Your task to perform on an android device: turn on showing notifications on the lock screen Image 0: 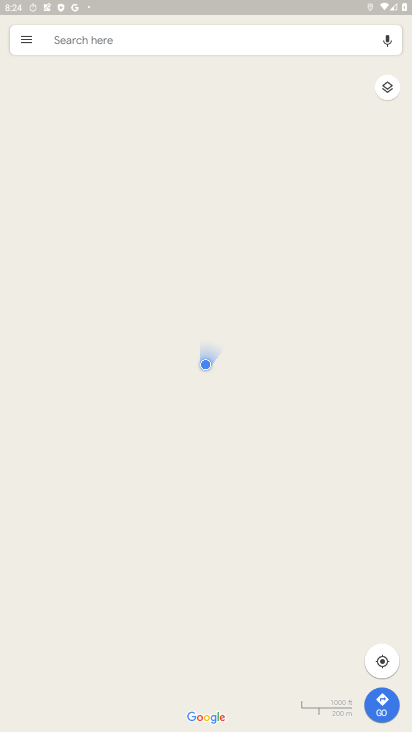
Step 0: press back button
Your task to perform on an android device: turn on showing notifications on the lock screen Image 1: 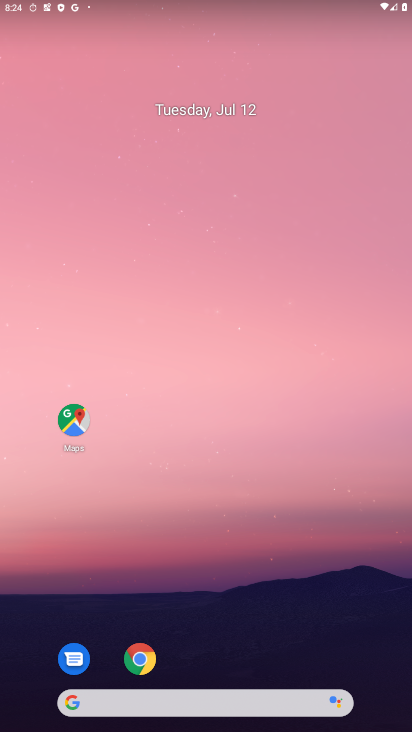
Step 1: press home button
Your task to perform on an android device: turn on showing notifications on the lock screen Image 2: 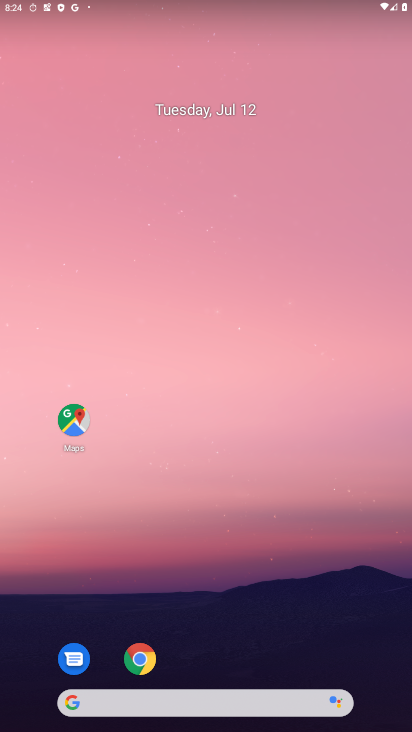
Step 2: drag from (236, 637) to (203, 335)
Your task to perform on an android device: turn on showing notifications on the lock screen Image 3: 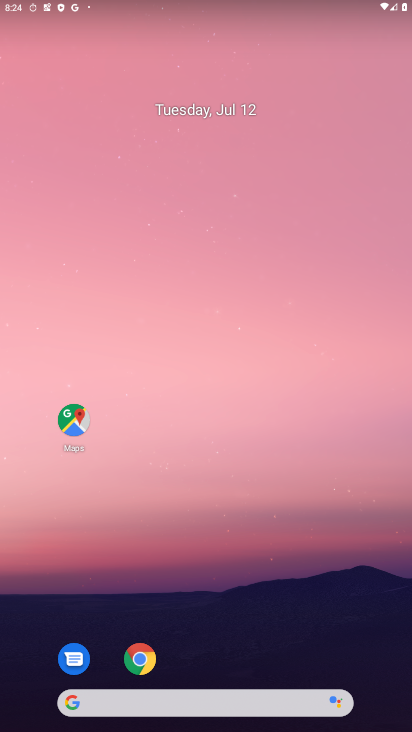
Step 3: drag from (244, 658) to (261, 227)
Your task to perform on an android device: turn on showing notifications on the lock screen Image 4: 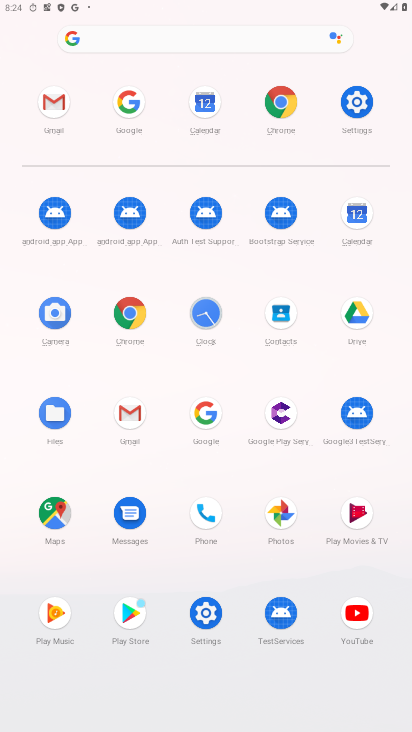
Step 4: click (206, 602)
Your task to perform on an android device: turn on showing notifications on the lock screen Image 5: 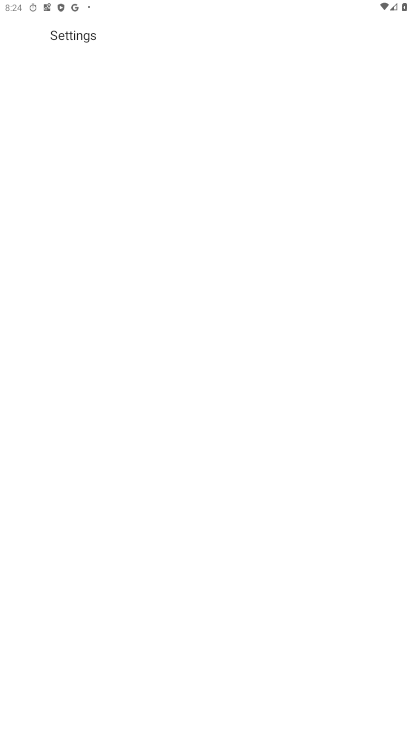
Step 5: click (210, 616)
Your task to perform on an android device: turn on showing notifications on the lock screen Image 6: 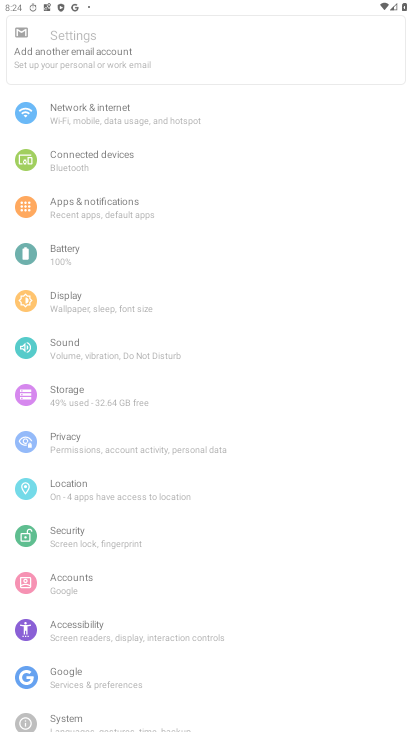
Step 6: click (211, 617)
Your task to perform on an android device: turn on showing notifications on the lock screen Image 7: 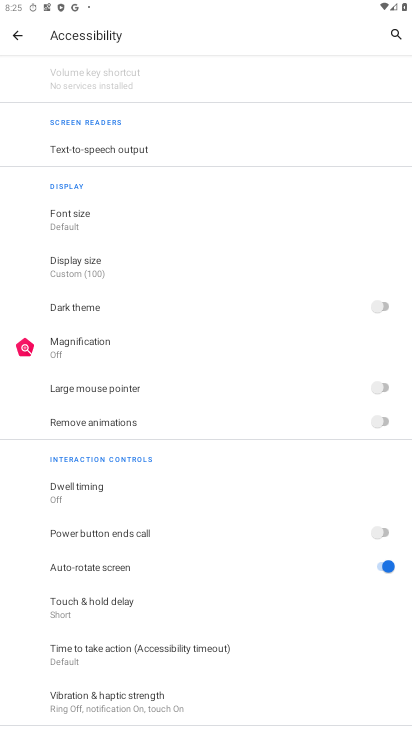
Step 7: click (10, 36)
Your task to perform on an android device: turn on showing notifications on the lock screen Image 8: 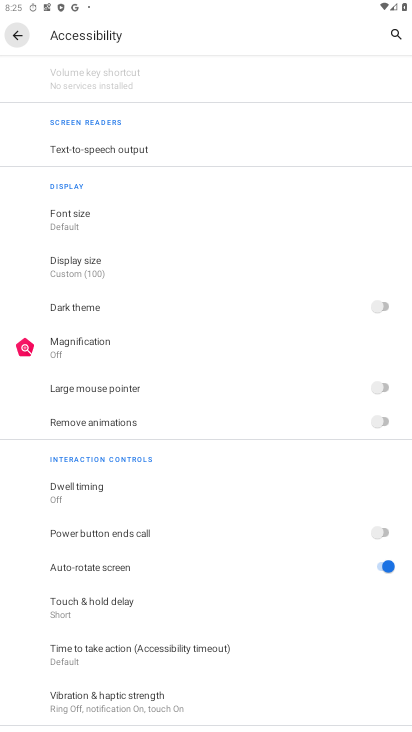
Step 8: click (10, 36)
Your task to perform on an android device: turn on showing notifications on the lock screen Image 9: 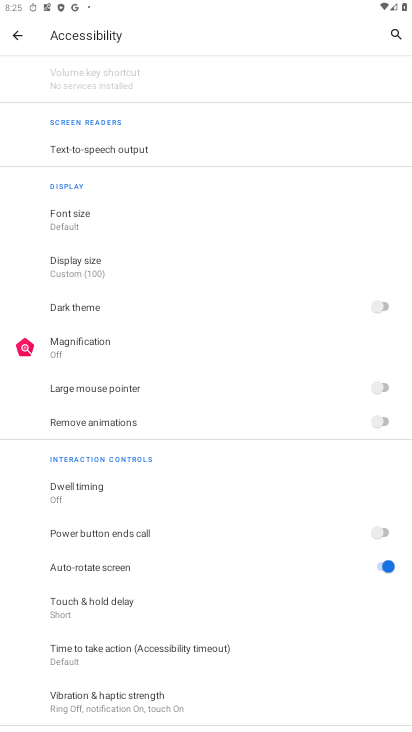
Step 9: click (17, 33)
Your task to perform on an android device: turn on showing notifications on the lock screen Image 10: 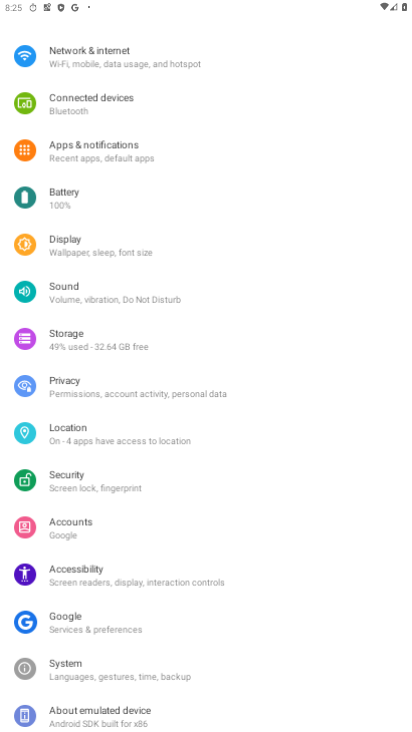
Step 10: click (17, 32)
Your task to perform on an android device: turn on showing notifications on the lock screen Image 11: 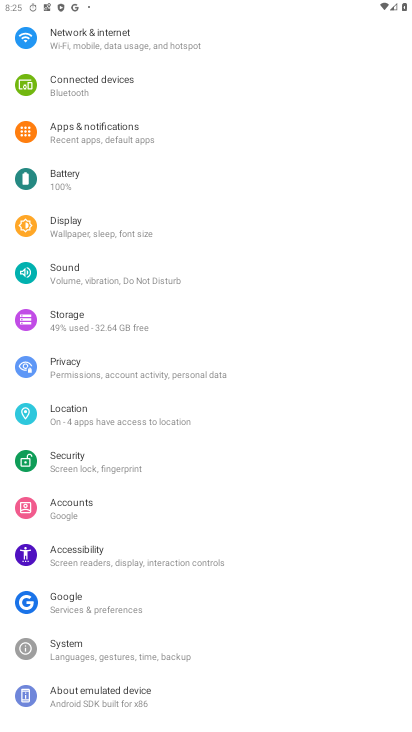
Step 11: click (19, 32)
Your task to perform on an android device: turn on showing notifications on the lock screen Image 12: 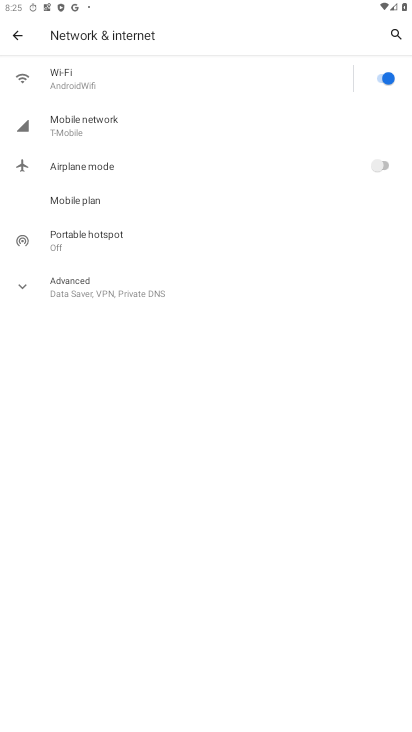
Step 12: click (15, 32)
Your task to perform on an android device: turn on showing notifications on the lock screen Image 13: 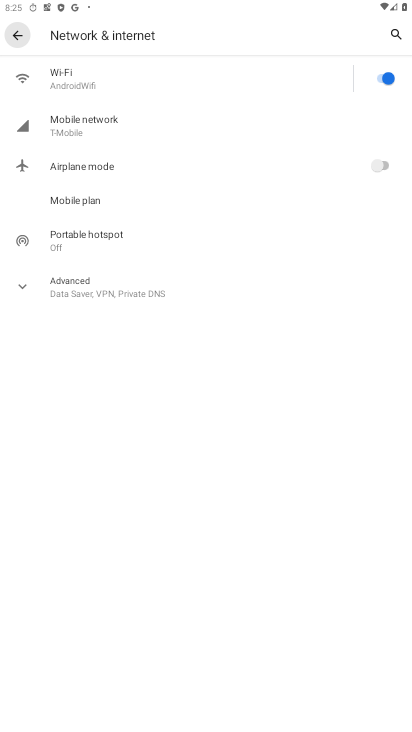
Step 13: click (15, 32)
Your task to perform on an android device: turn on showing notifications on the lock screen Image 14: 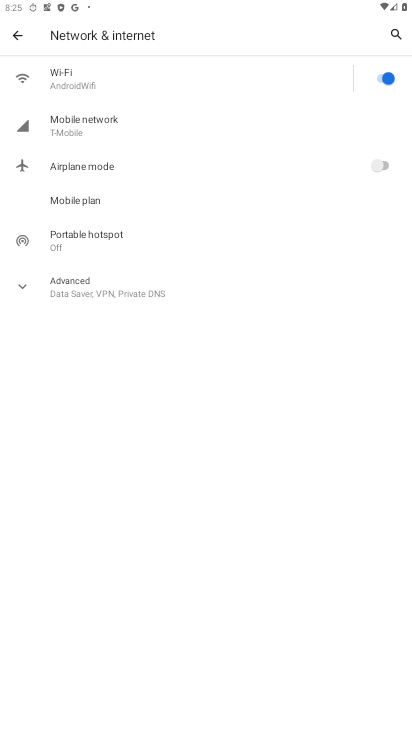
Step 14: click (15, 31)
Your task to perform on an android device: turn on showing notifications on the lock screen Image 15: 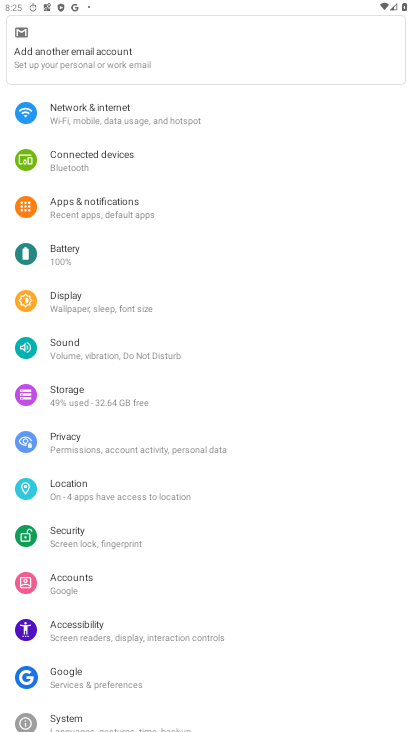
Step 15: click (91, 196)
Your task to perform on an android device: turn on showing notifications on the lock screen Image 16: 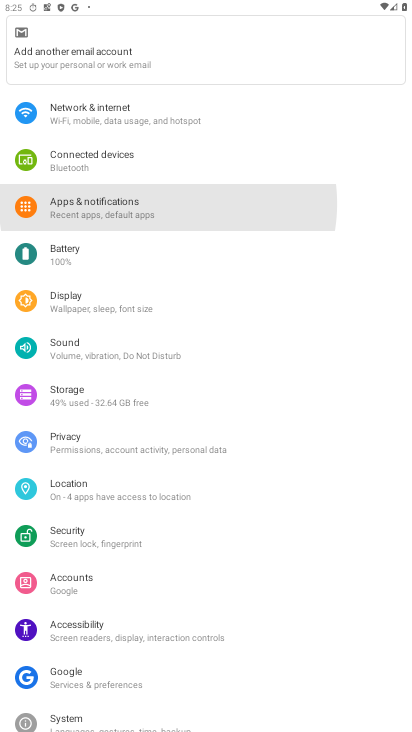
Step 16: click (93, 197)
Your task to perform on an android device: turn on showing notifications on the lock screen Image 17: 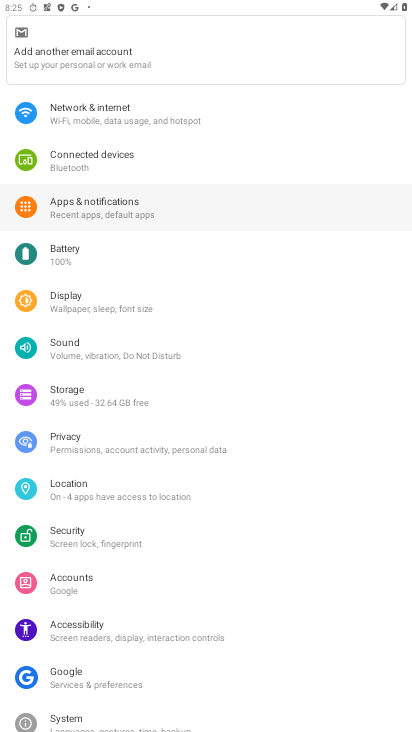
Step 17: click (88, 203)
Your task to perform on an android device: turn on showing notifications on the lock screen Image 18: 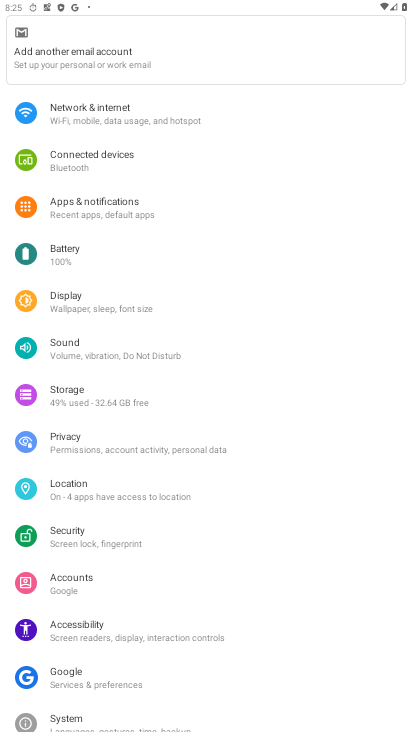
Step 18: click (87, 205)
Your task to perform on an android device: turn on showing notifications on the lock screen Image 19: 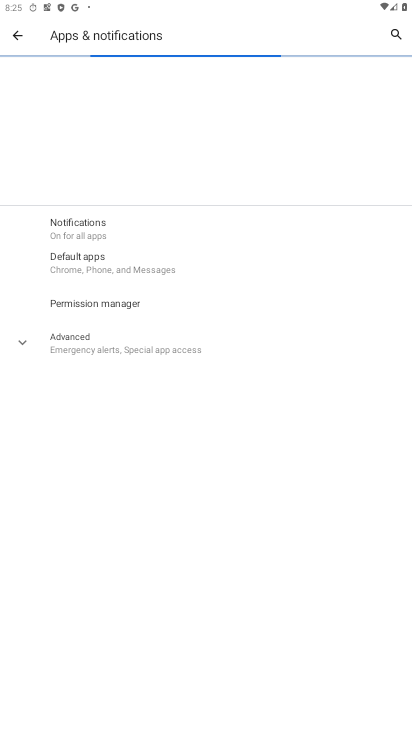
Step 19: click (87, 208)
Your task to perform on an android device: turn on showing notifications on the lock screen Image 20: 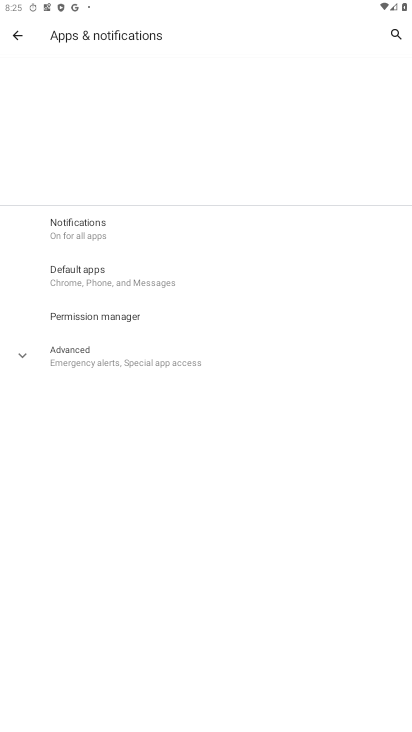
Step 20: click (94, 230)
Your task to perform on an android device: turn on showing notifications on the lock screen Image 21: 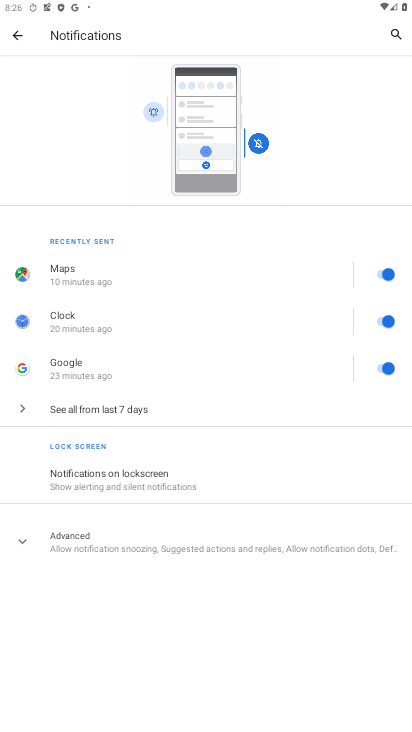
Step 21: click (93, 471)
Your task to perform on an android device: turn on showing notifications on the lock screen Image 22: 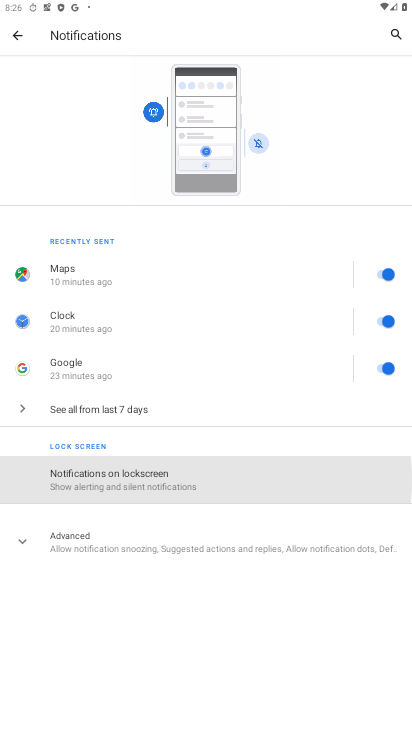
Step 22: click (95, 471)
Your task to perform on an android device: turn on showing notifications on the lock screen Image 23: 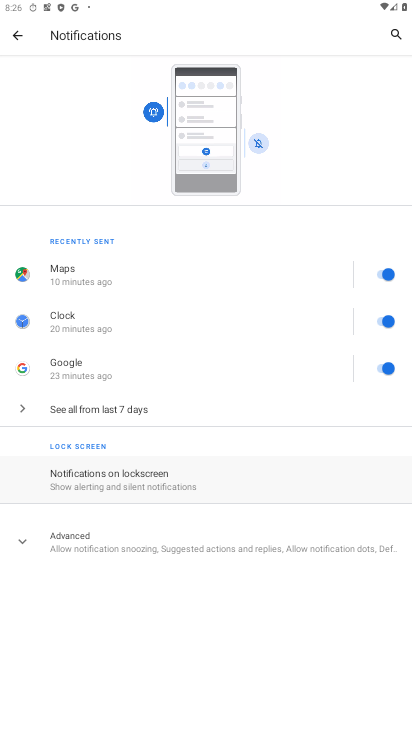
Step 23: click (98, 470)
Your task to perform on an android device: turn on showing notifications on the lock screen Image 24: 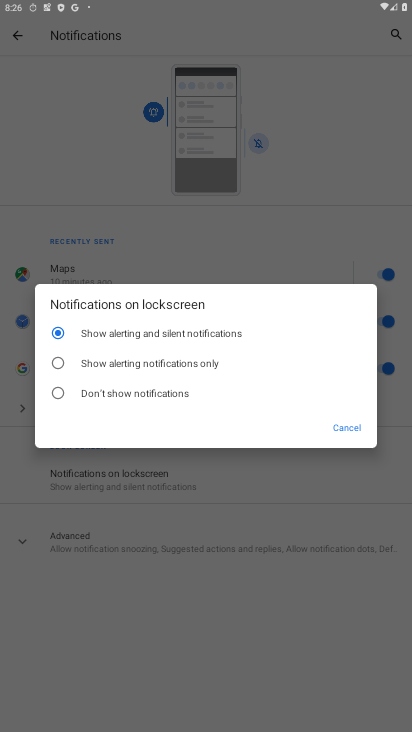
Step 24: click (97, 470)
Your task to perform on an android device: turn on showing notifications on the lock screen Image 25: 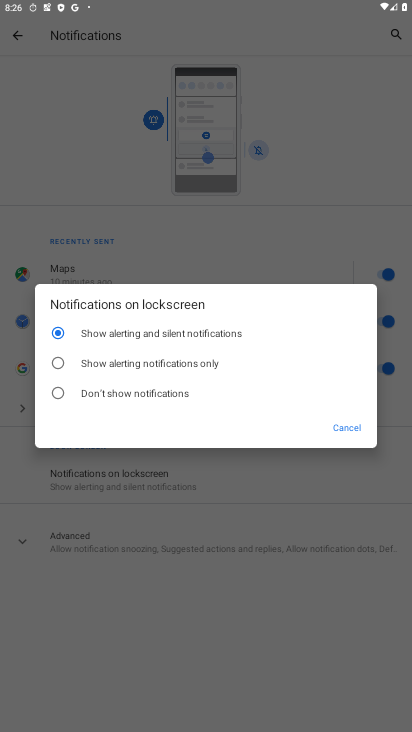
Step 25: task complete